Your task to perform on an android device: stop showing notifications on the lock screen Image 0: 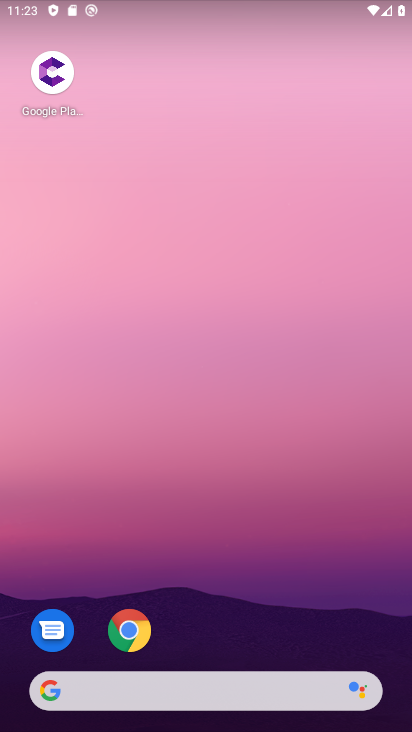
Step 0: press home button
Your task to perform on an android device: stop showing notifications on the lock screen Image 1: 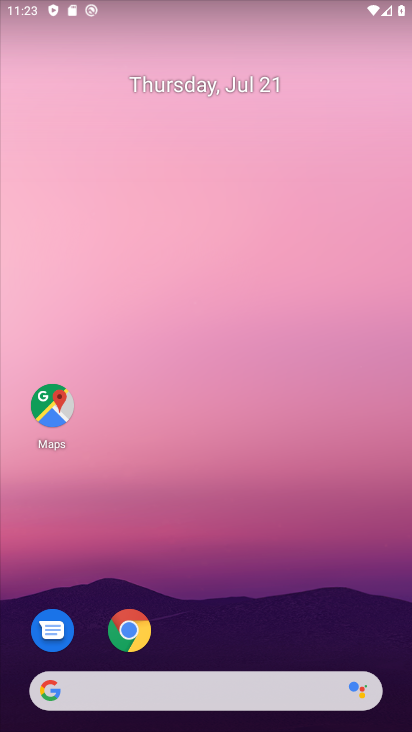
Step 1: drag from (317, 603) to (292, 46)
Your task to perform on an android device: stop showing notifications on the lock screen Image 2: 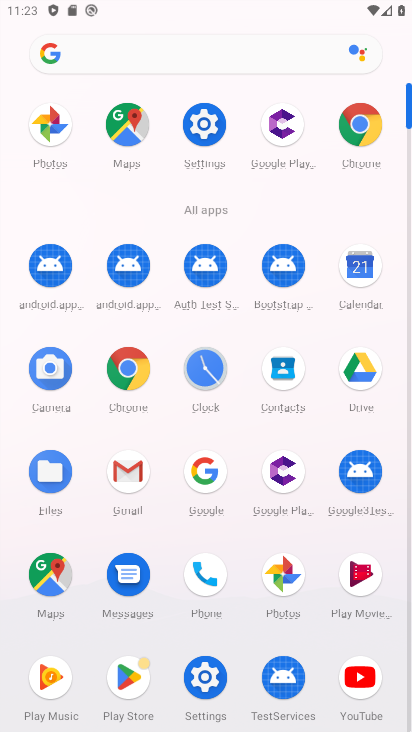
Step 2: click (205, 131)
Your task to perform on an android device: stop showing notifications on the lock screen Image 3: 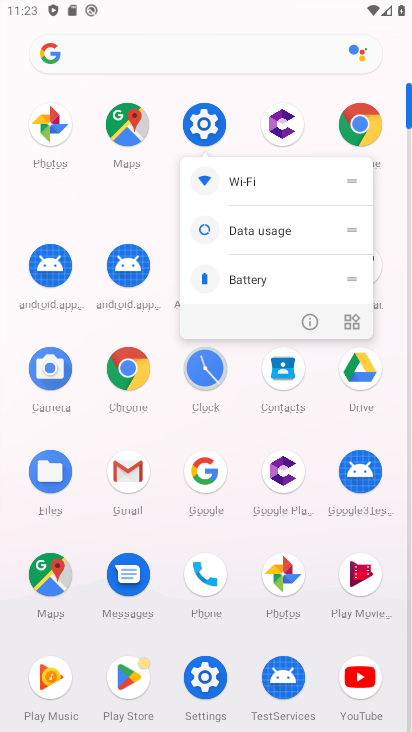
Step 3: click (206, 118)
Your task to perform on an android device: stop showing notifications on the lock screen Image 4: 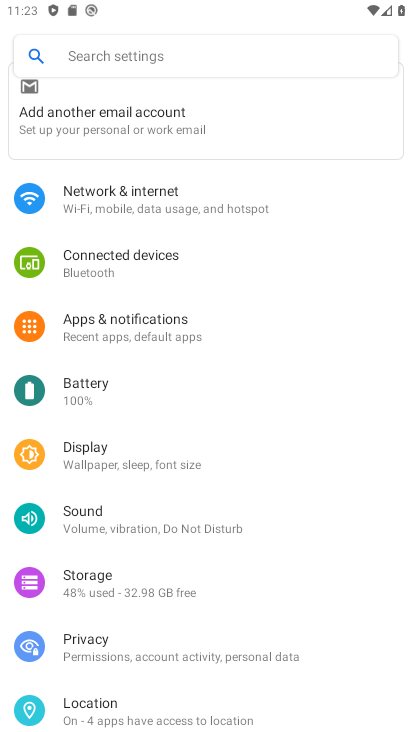
Step 4: click (146, 334)
Your task to perform on an android device: stop showing notifications on the lock screen Image 5: 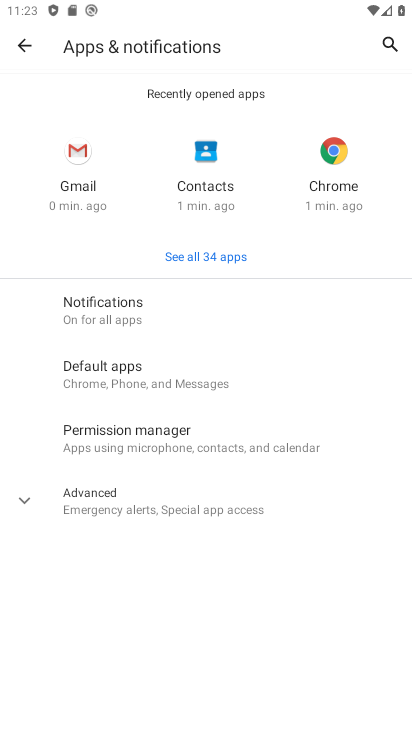
Step 5: click (96, 304)
Your task to perform on an android device: stop showing notifications on the lock screen Image 6: 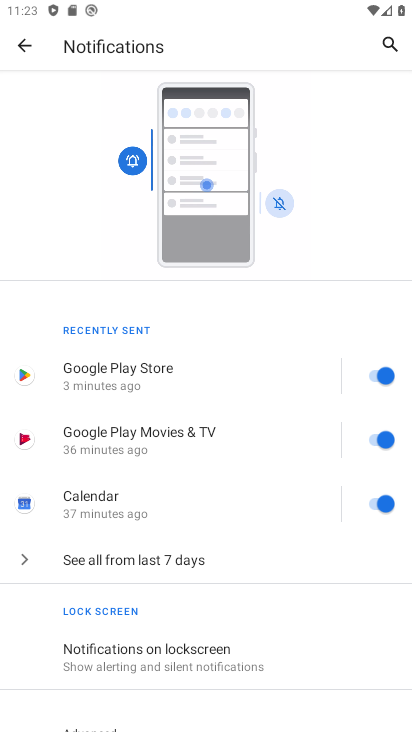
Step 6: click (163, 648)
Your task to perform on an android device: stop showing notifications on the lock screen Image 7: 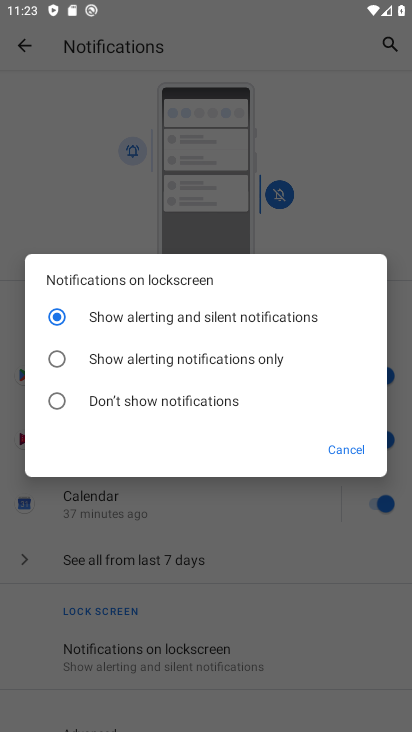
Step 7: task complete